Your task to perform on an android device: Open the calendar app, open the side menu, and click the "Day" option Image 0: 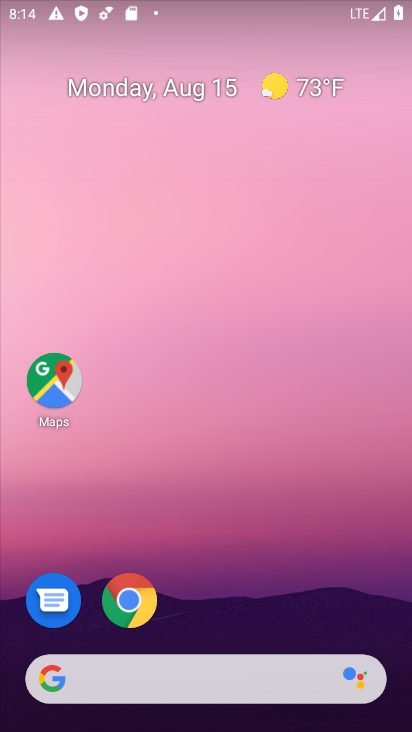
Step 0: drag from (241, 648) to (270, 99)
Your task to perform on an android device: Open the calendar app, open the side menu, and click the "Day" option Image 1: 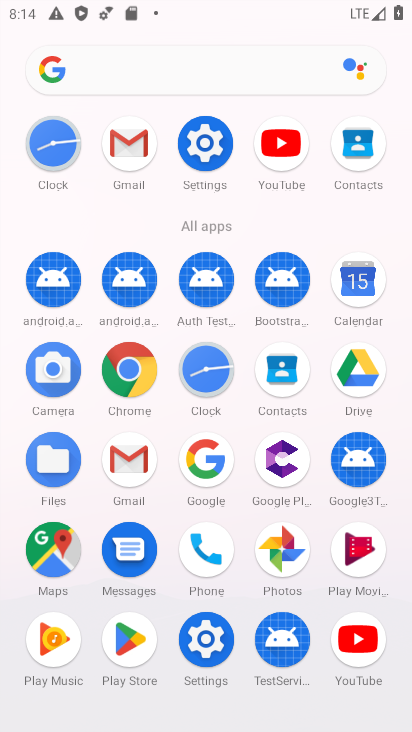
Step 1: click (354, 278)
Your task to perform on an android device: Open the calendar app, open the side menu, and click the "Day" option Image 2: 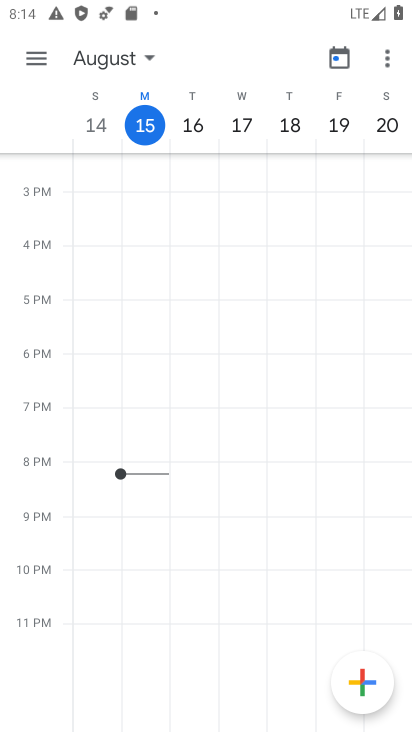
Step 2: click (28, 56)
Your task to perform on an android device: Open the calendar app, open the side menu, and click the "Day" option Image 3: 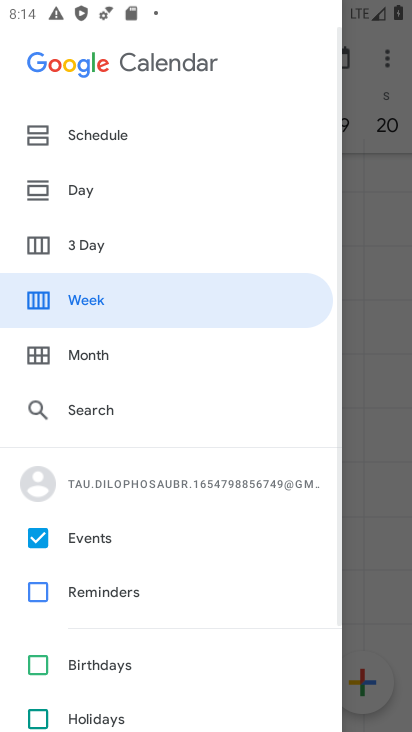
Step 3: click (72, 183)
Your task to perform on an android device: Open the calendar app, open the side menu, and click the "Day" option Image 4: 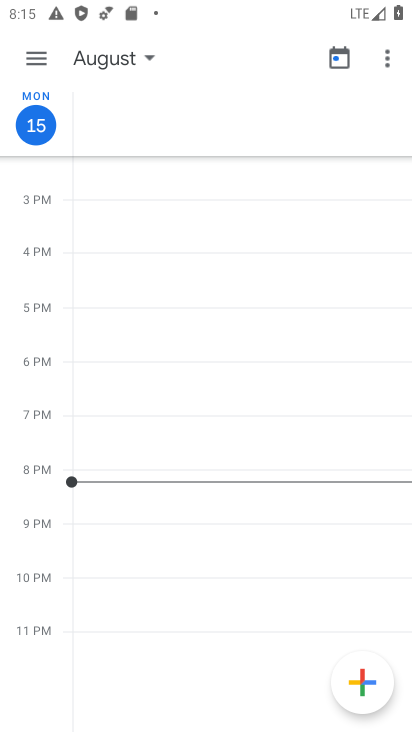
Step 4: task complete